Your task to perform on an android device: turn off smart reply in the gmail app Image 0: 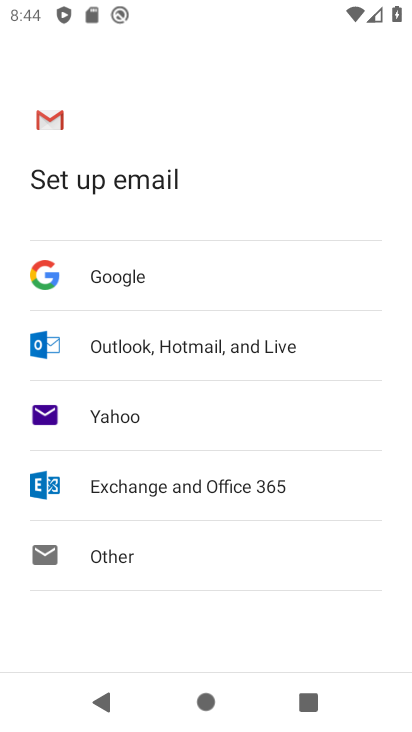
Step 0: press home button
Your task to perform on an android device: turn off smart reply in the gmail app Image 1: 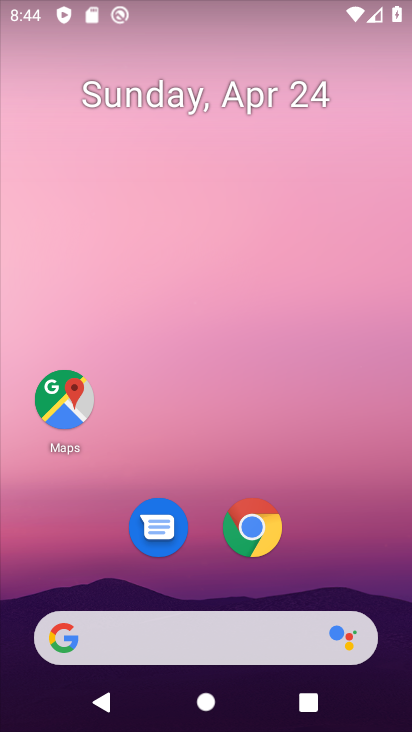
Step 1: drag from (379, 574) to (258, 99)
Your task to perform on an android device: turn off smart reply in the gmail app Image 2: 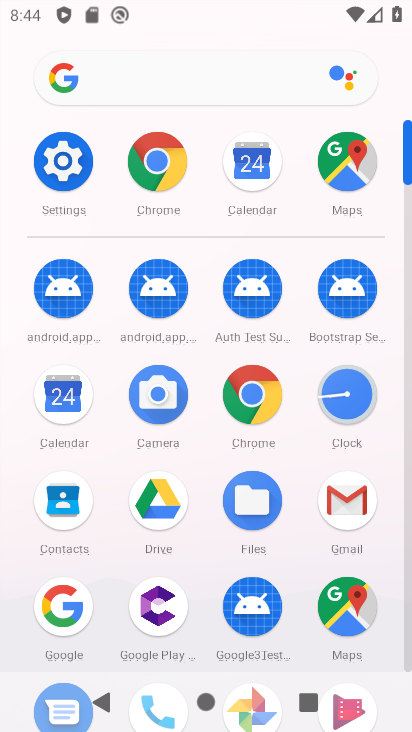
Step 2: click (354, 505)
Your task to perform on an android device: turn off smart reply in the gmail app Image 3: 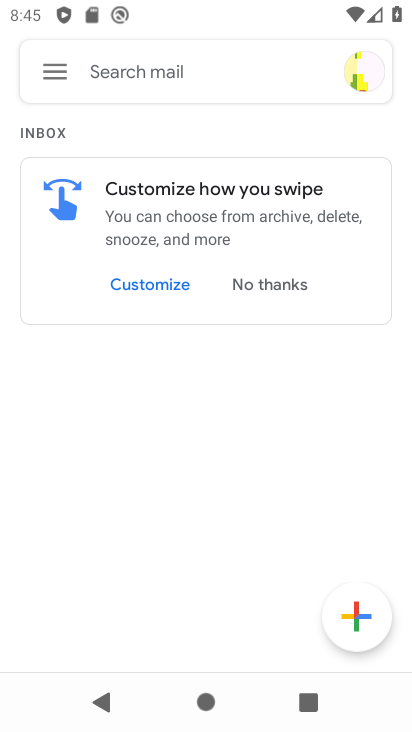
Step 3: click (40, 67)
Your task to perform on an android device: turn off smart reply in the gmail app Image 4: 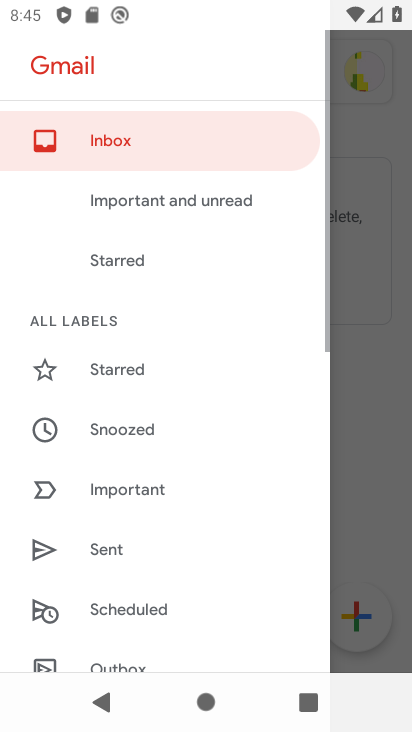
Step 4: drag from (187, 620) to (207, 143)
Your task to perform on an android device: turn off smart reply in the gmail app Image 5: 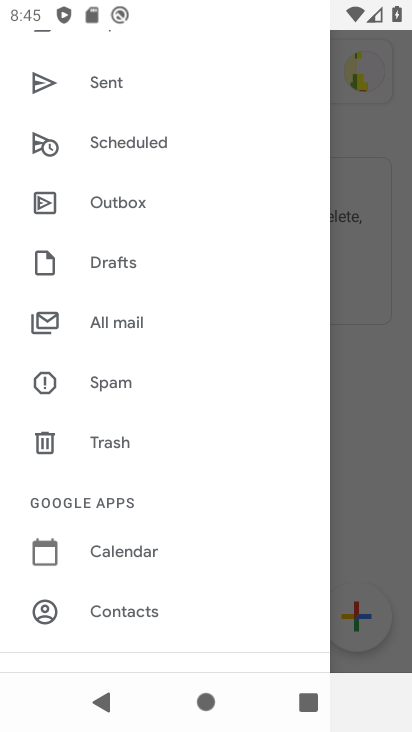
Step 5: drag from (125, 610) to (177, 125)
Your task to perform on an android device: turn off smart reply in the gmail app Image 6: 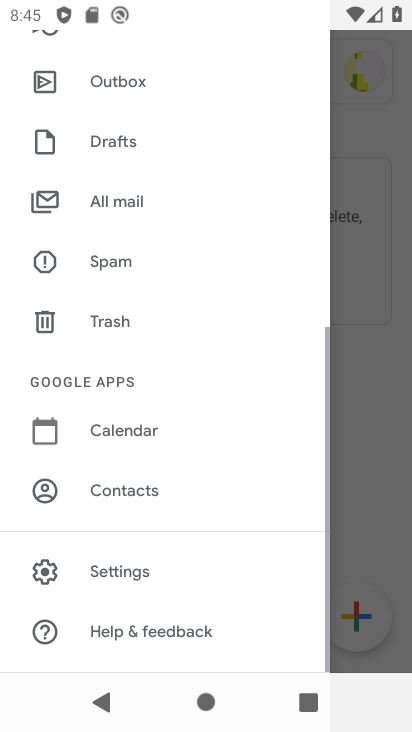
Step 6: click (172, 574)
Your task to perform on an android device: turn off smart reply in the gmail app Image 7: 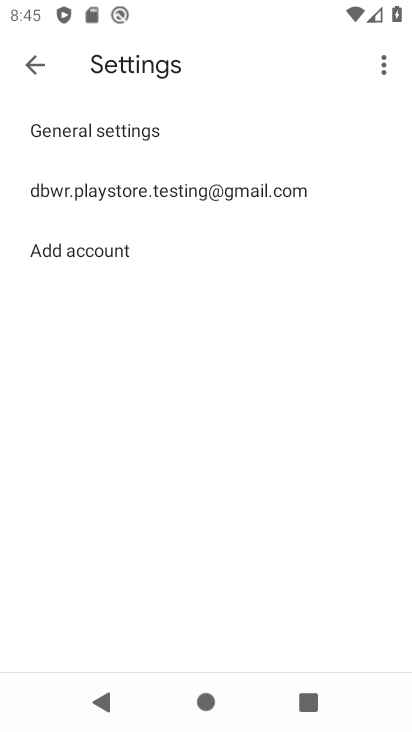
Step 7: click (168, 187)
Your task to perform on an android device: turn off smart reply in the gmail app Image 8: 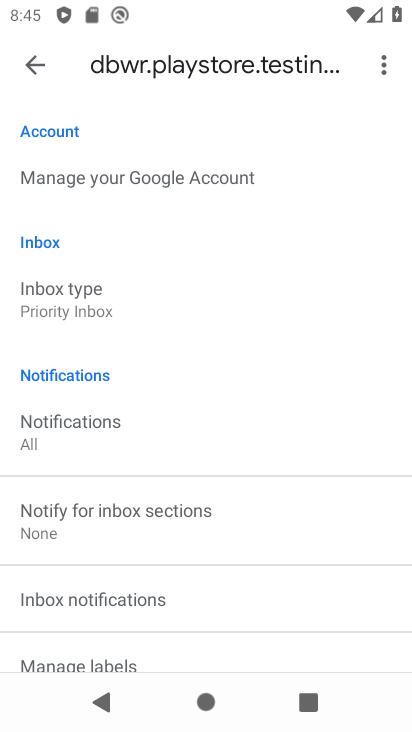
Step 8: drag from (155, 615) to (158, 91)
Your task to perform on an android device: turn off smart reply in the gmail app Image 9: 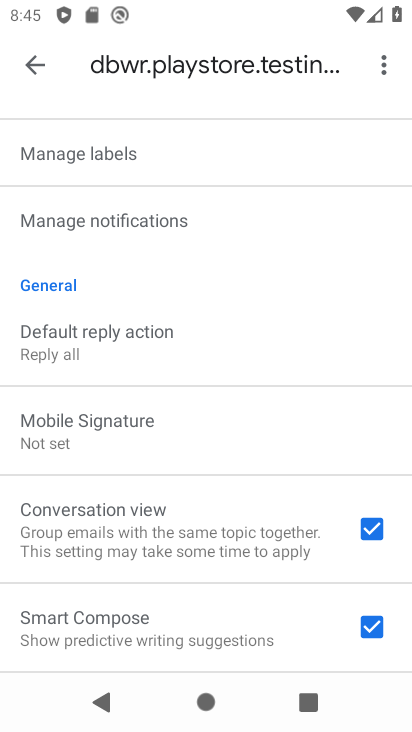
Step 9: drag from (195, 612) to (245, 263)
Your task to perform on an android device: turn off smart reply in the gmail app Image 10: 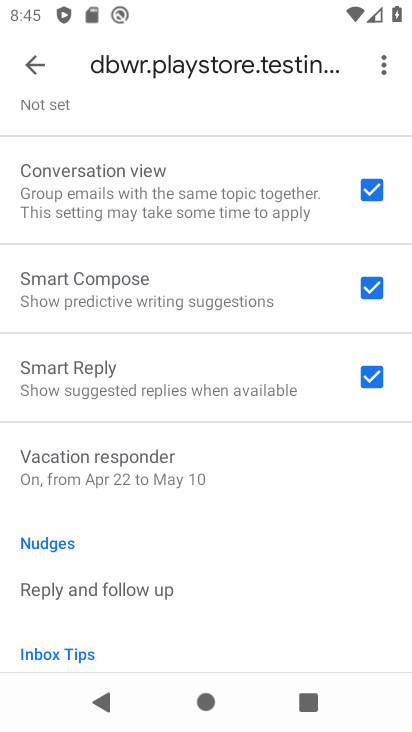
Step 10: click (262, 385)
Your task to perform on an android device: turn off smart reply in the gmail app Image 11: 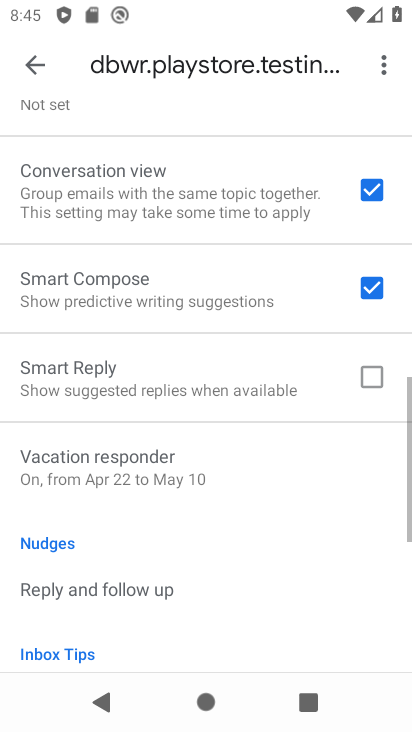
Step 11: task complete